Your task to perform on an android device: Open internet settings Image 0: 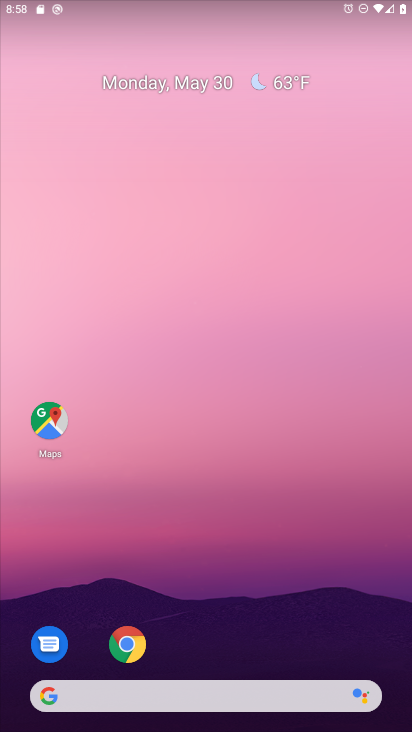
Step 0: drag from (185, 623) to (225, 99)
Your task to perform on an android device: Open internet settings Image 1: 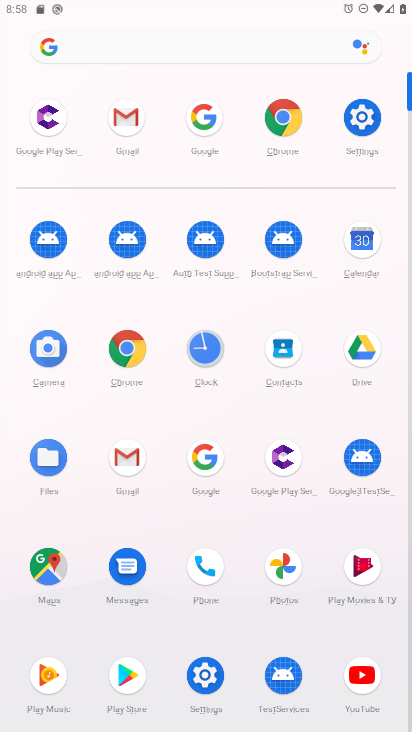
Step 1: click (367, 116)
Your task to perform on an android device: Open internet settings Image 2: 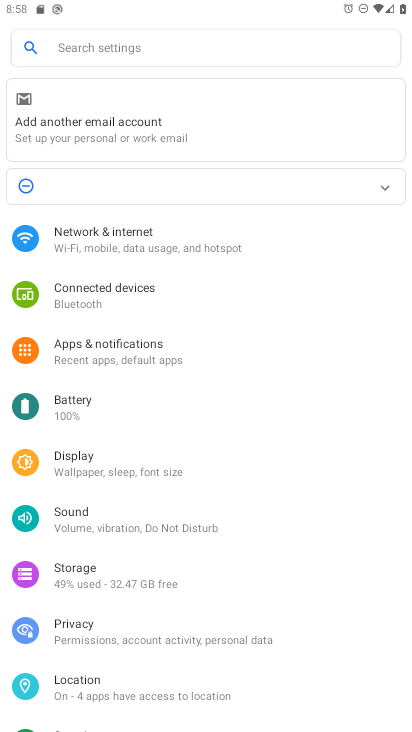
Step 2: click (132, 230)
Your task to perform on an android device: Open internet settings Image 3: 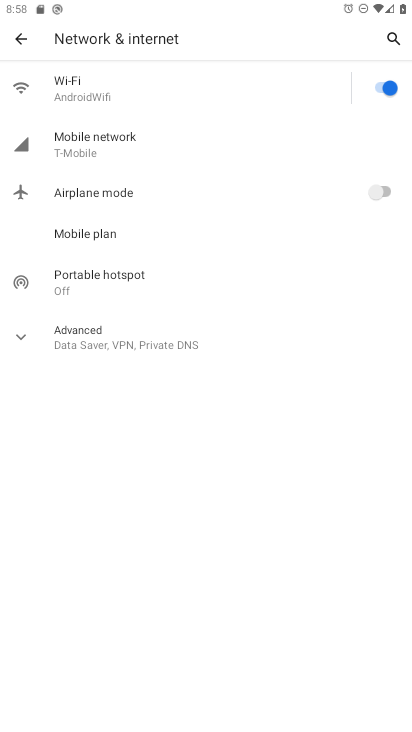
Step 3: click (121, 89)
Your task to perform on an android device: Open internet settings Image 4: 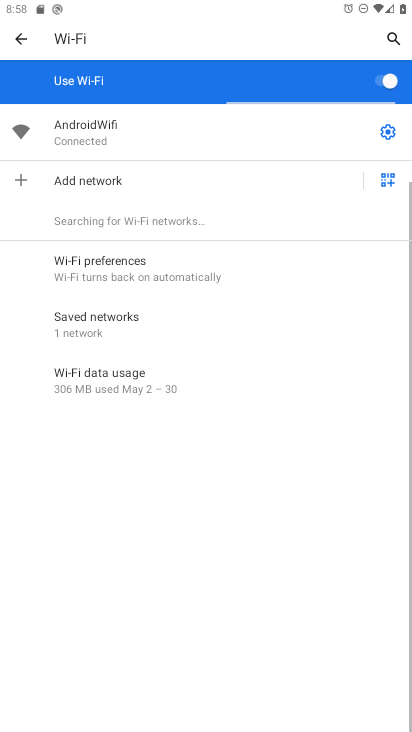
Step 4: click (137, 145)
Your task to perform on an android device: Open internet settings Image 5: 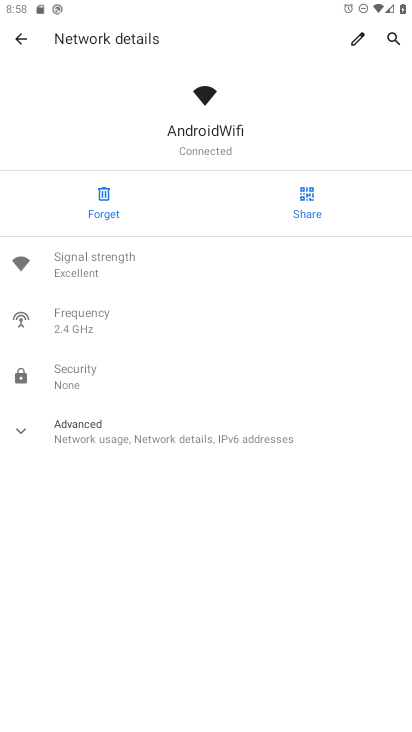
Step 5: task complete